Your task to perform on an android device: make emails show in primary in the gmail app Image 0: 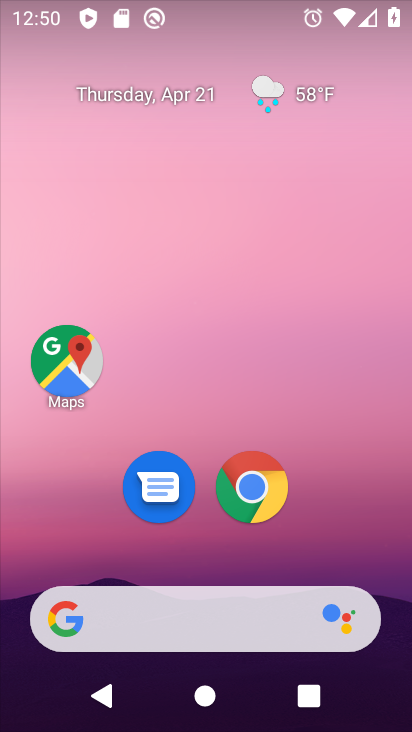
Step 0: drag from (401, 569) to (377, 0)
Your task to perform on an android device: make emails show in primary in the gmail app Image 1: 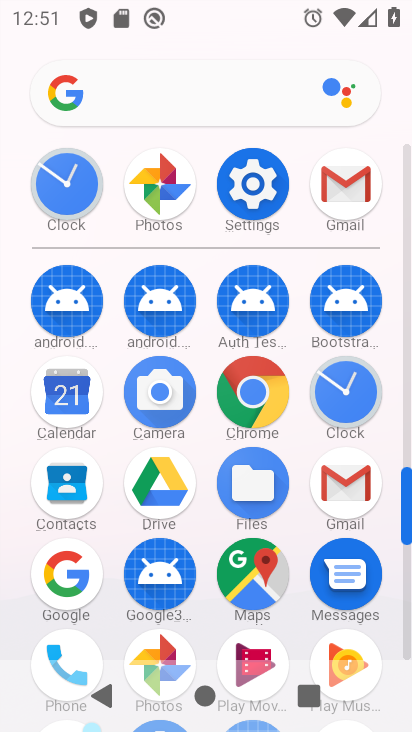
Step 1: click (340, 195)
Your task to perform on an android device: make emails show in primary in the gmail app Image 2: 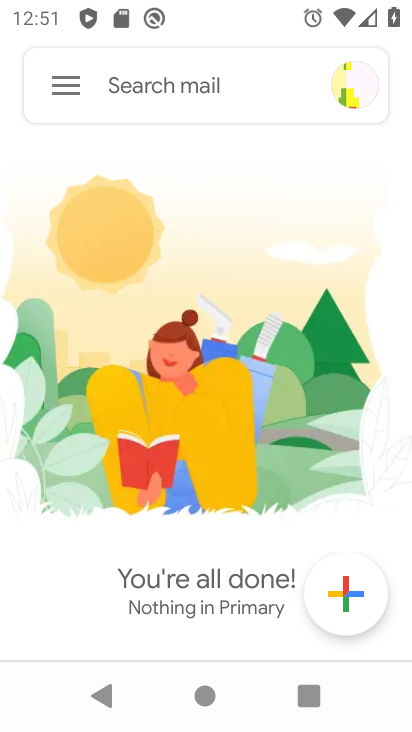
Step 2: click (65, 86)
Your task to perform on an android device: make emails show in primary in the gmail app Image 3: 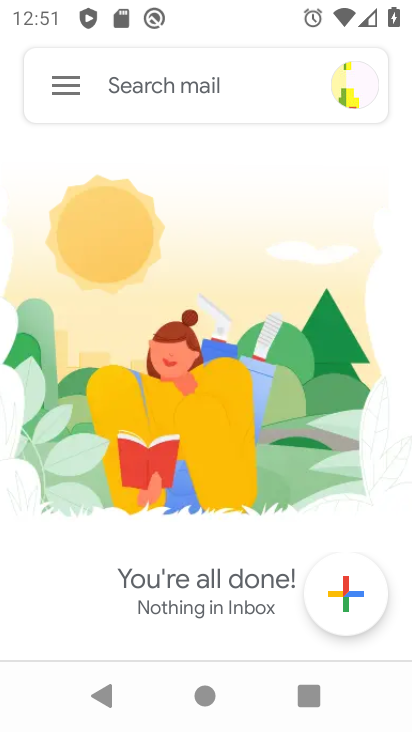
Step 3: click (64, 87)
Your task to perform on an android device: make emails show in primary in the gmail app Image 4: 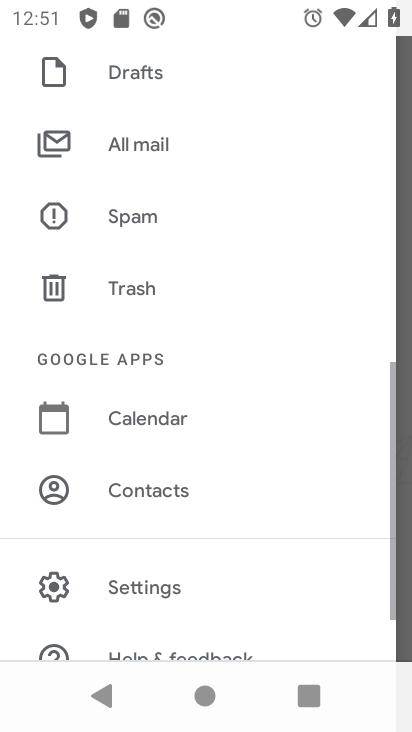
Step 4: drag from (199, 187) to (221, 585)
Your task to perform on an android device: make emails show in primary in the gmail app Image 5: 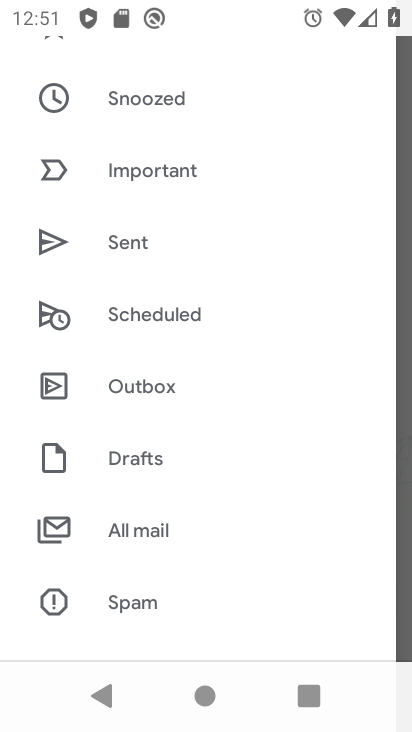
Step 5: drag from (224, 287) to (216, 509)
Your task to perform on an android device: make emails show in primary in the gmail app Image 6: 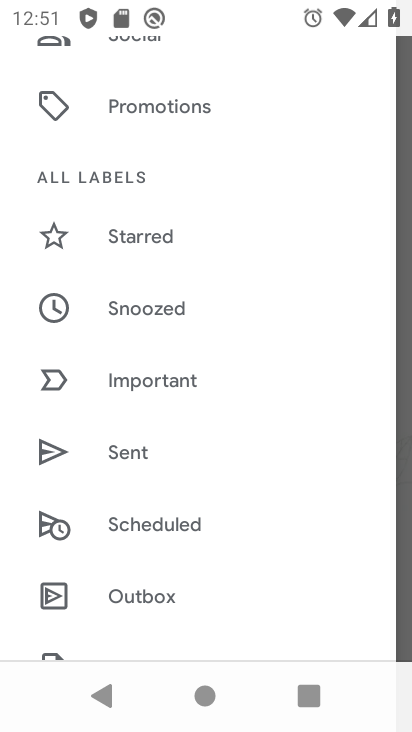
Step 6: drag from (189, 261) to (198, 537)
Your task to perform on an android device: make emails show in primary in the gmail app Image 7: 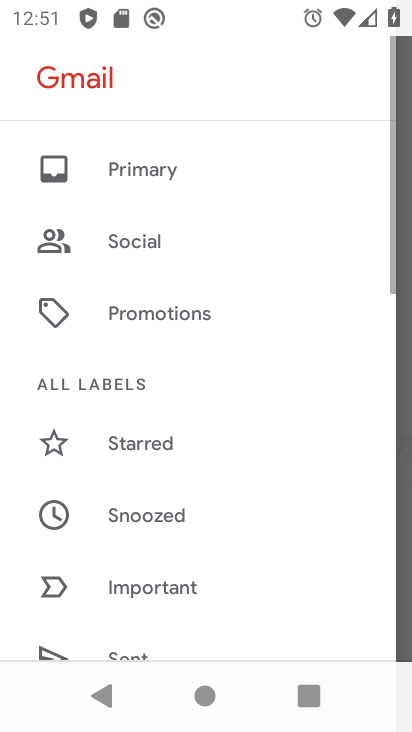
Step 7: click (129, 175)
Your task to perform on an android device: make emails show in primary in the gmail app Image 8: 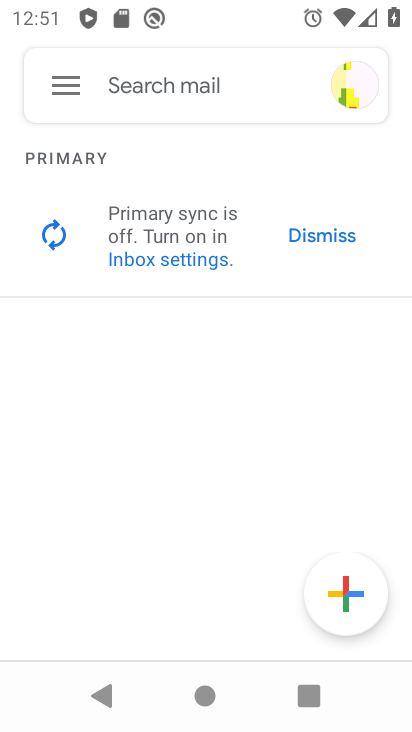
Step 8: click (66, 95)
Your task to perform on an android device: make emails show in primary in the gmail app Image 9: 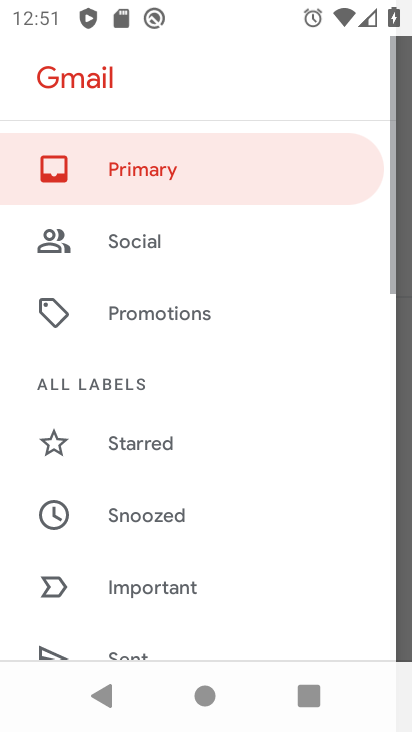
Step 9: drag from (234, 580) to (211, 94)
Your task to perform on an android device: make emails show in primary in the gmail app Image 10: 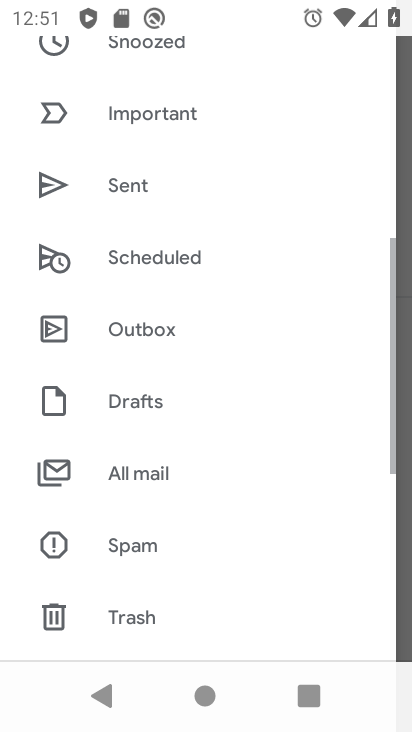
Step 10: drag from (193, 564) to (195, 95)
Your task to perform on an android device: make emails show in primary in the gmail app Image 11: 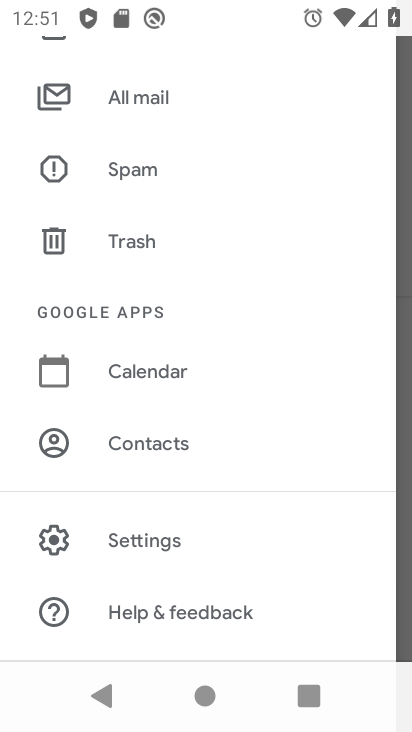
Step 11: click (136, 549)
Your task to perform on an android device: make emails show in primary in the gmail app Image 12: 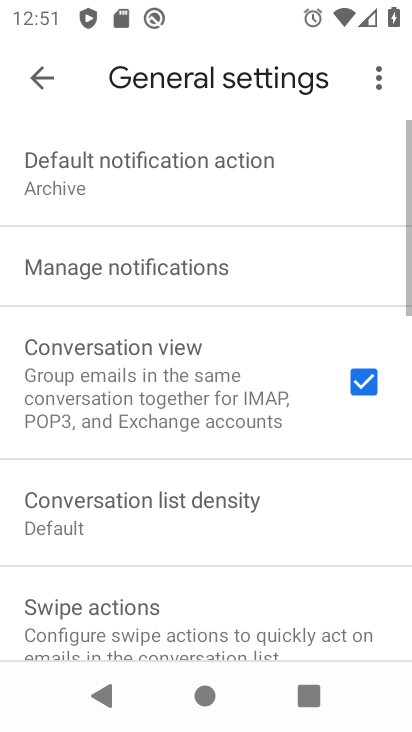
Step 12: click (234, 573)
Your task to perform on an android device: make emails show in primary in the gmail app Image 13: 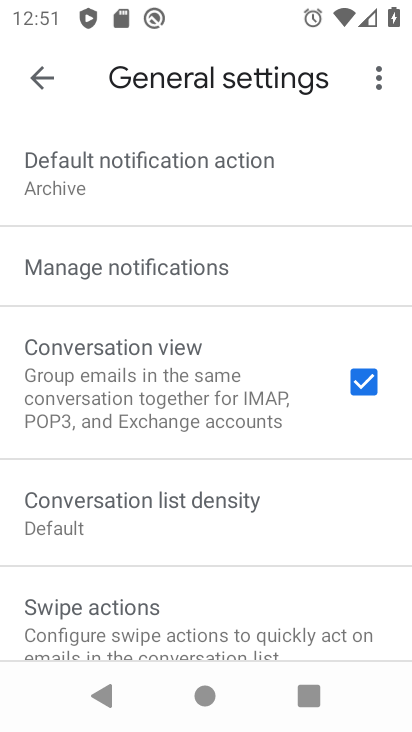
Step 13: click (40, 89)
Your task to perform on an android device: make emails show in primary in the gmail app Image 14: 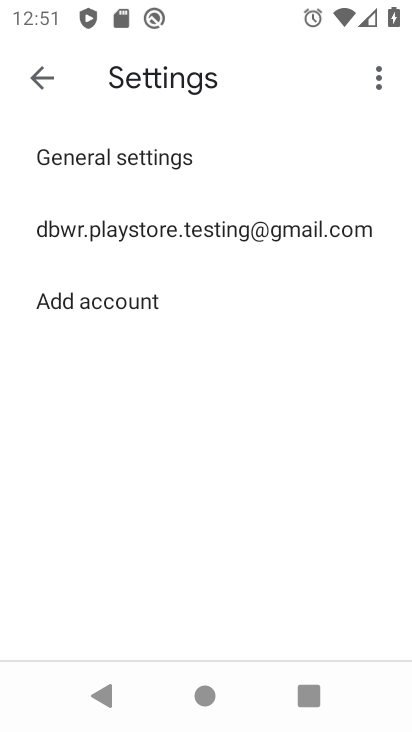
Step 14: click (132, 231)
Your task to perform on an android device: make emails show in primary in the gmail app Image 15: 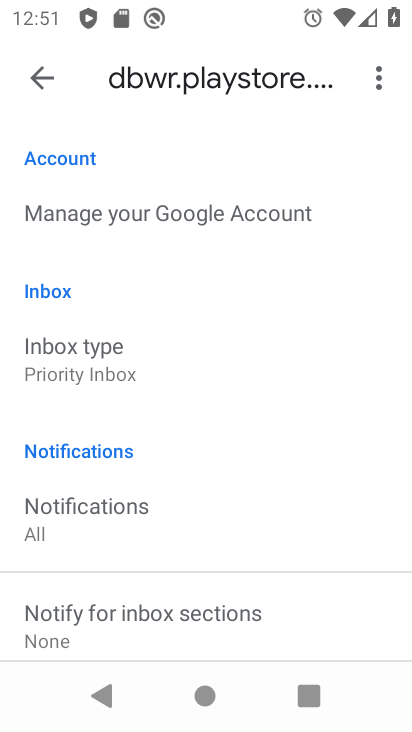
Step 15: task complete